Your task to perform on an android device: snooze an email in the gmail app Image 0: 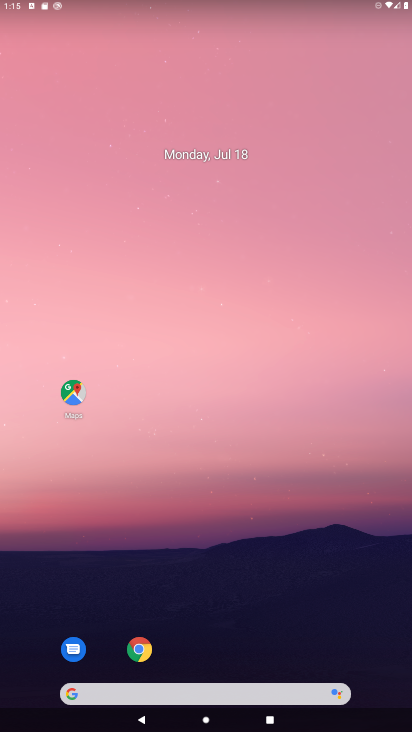
Step 0: drag from (369, 666) to (322, 77)
Your task to perform on an android device: snooze an email in the gmail app Image 1: 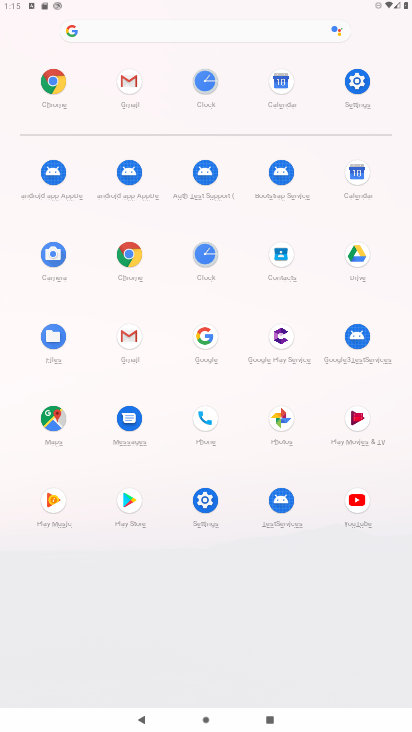
Step 1: click (128, 338)
Your task to perform on an android device: snooze an email in the gmail app Image 2: 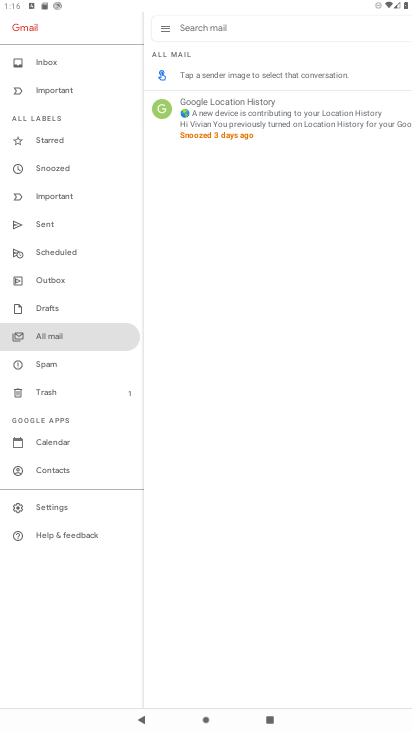
Step 2: click (273, 106)
Your task to perform on an android device: snooze an email in the gmail app Image 3: 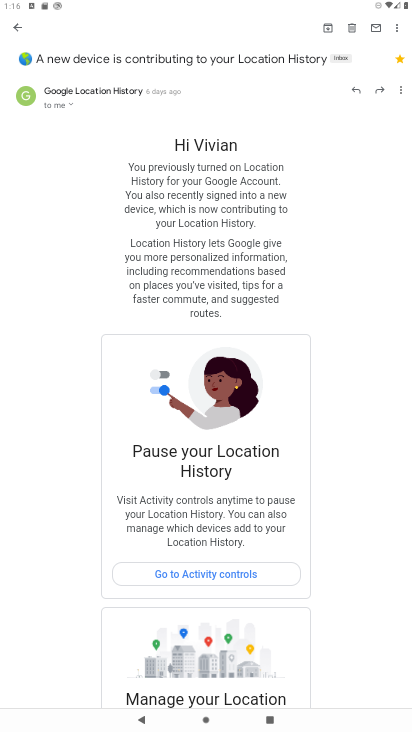
Step 3: click (394, 32)
Your task to perform on an android device: snooze an email in the gmail app Image 4: 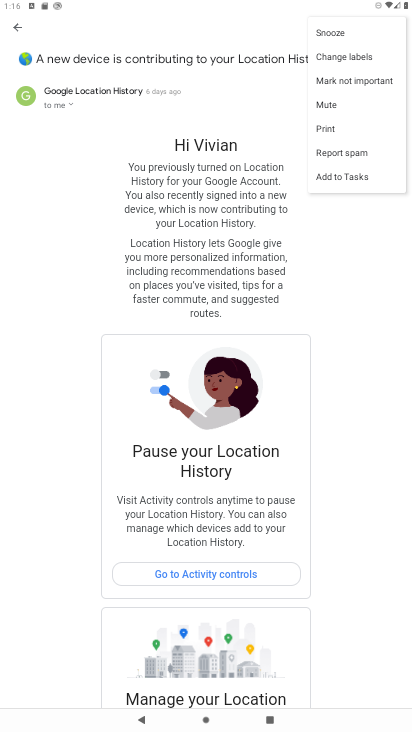
Step 4: click (330, 29)
Your task to perform on an android device: snooze an email in the gmail app Image 5: 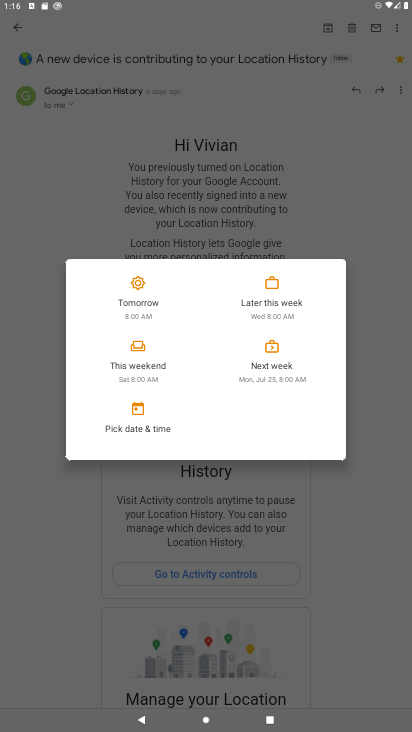
Step 5: click (138, 299)
Your task to perform on an android device: snooze an email in the gmail app Image 6: 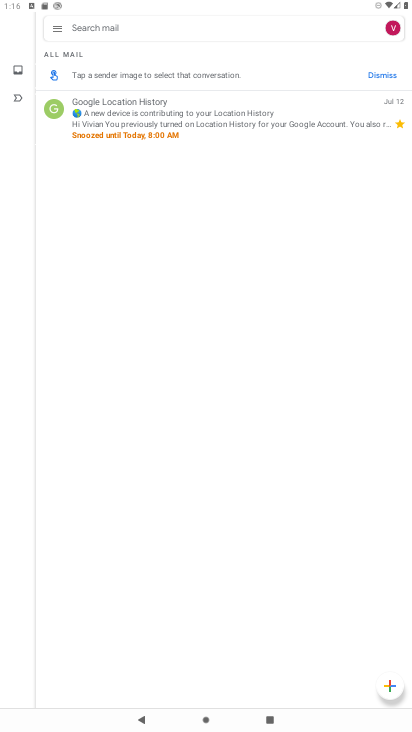
Step 6: task complete